Your task to perform on an android device: Open the stopwatch Image 0: 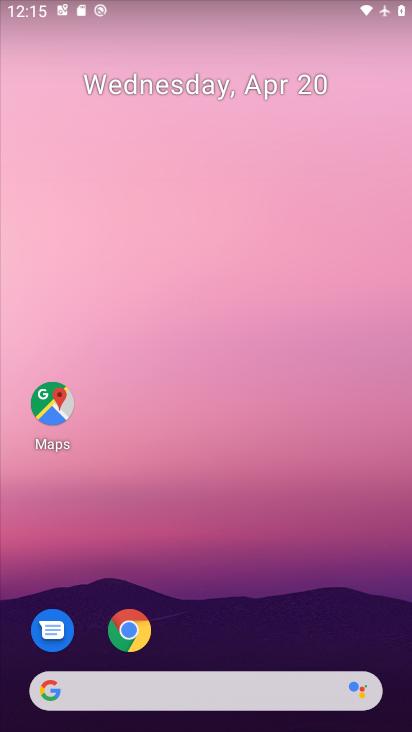
Step 0: drag from (192, 665) to (308, 229)
Your task to perform on an android device: Open the stopwatch Image 1: 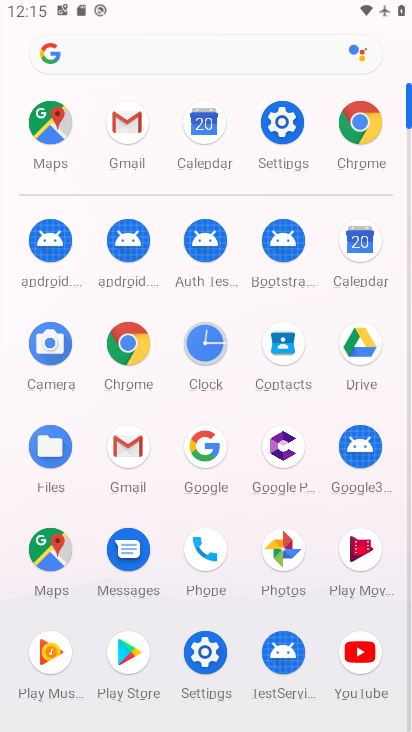
Step 1: click (200, 349)
Your task to perform on an android device: Open the stopwatch Image 2: 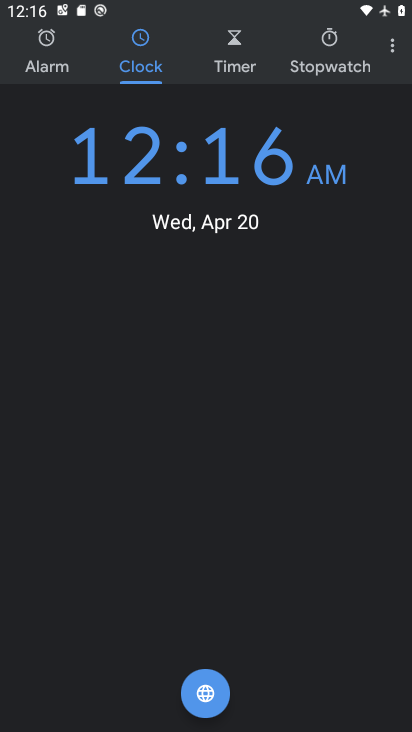
Step 2: click (324, 47)
Your task to perform on an android device: Open the stopwatch Image 3: 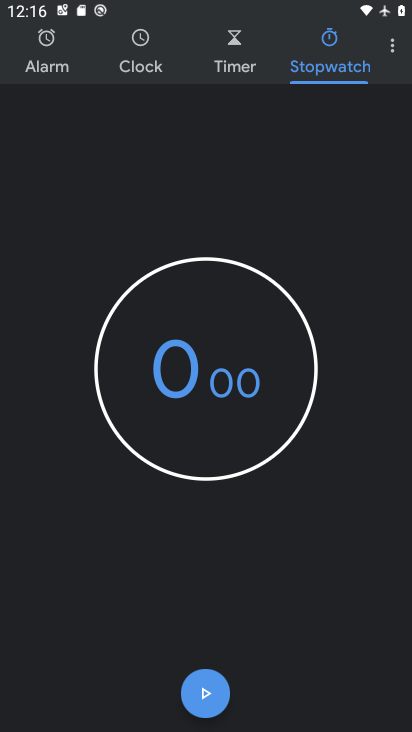
Step 3: task complete